Your task to perform on an android device: turn on the 24-hour format for clock Image 0: 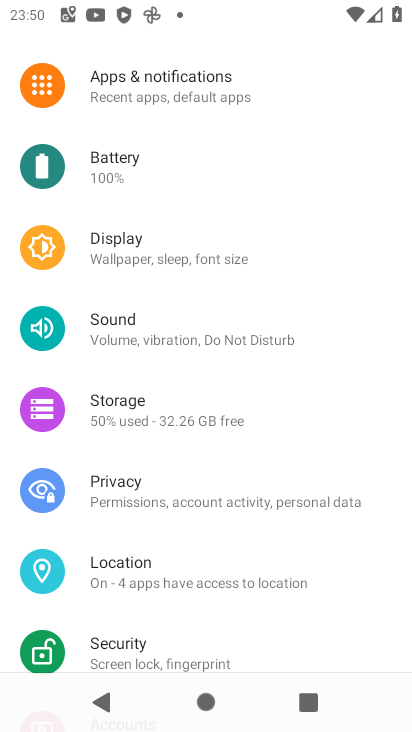
Step 0: press home button
Your task to perform on an android device: turn on the 24-hour format for clock Image 1: 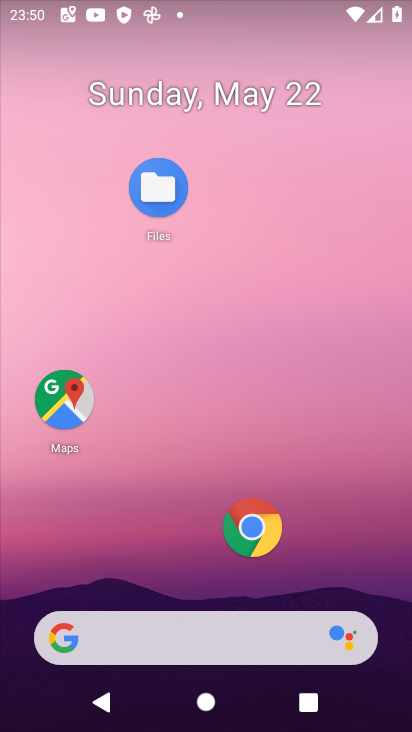
Step 1: drag from (127, 54) to (149, 21)
Your task to perform on an android device: turn on the 24-hour format for clock Image 2: 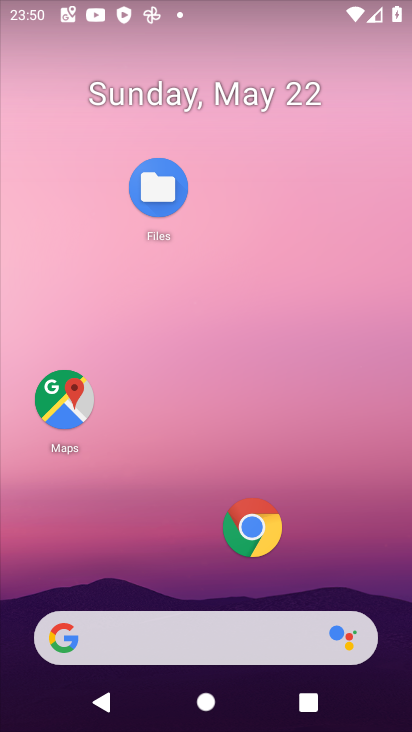
Step 2: drag from (328, 443) to (274, 75)
Your task to perform on an android device: turn on the 24-hour format for clock Image 3: 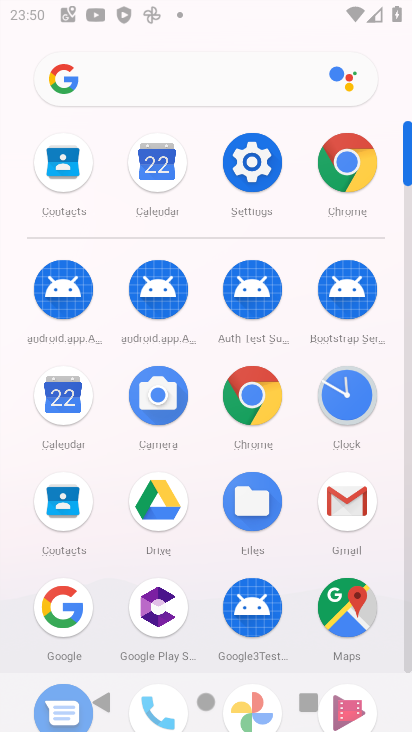
Step 3: click (332, 67)
Your task to perform on an android device: turn on the 24-hour format for clock Image 4: 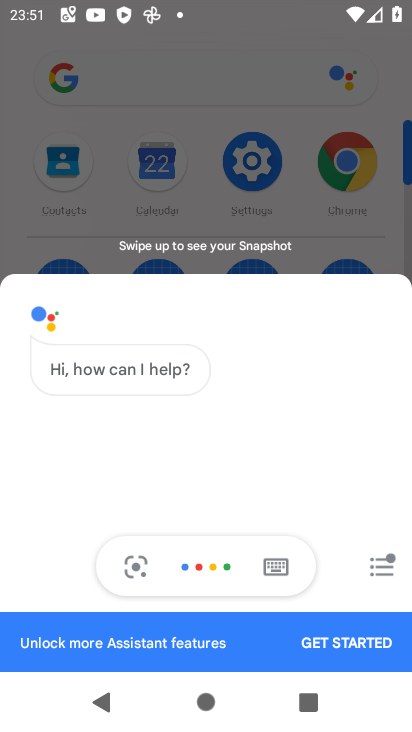
Step 4: click (19, 249)
Your task to perform on an android device: turn on the 24-hour format for clock Image 5: 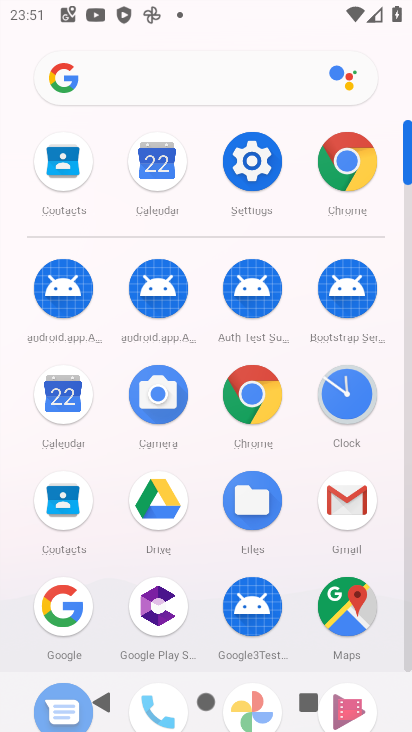
Step 5: click (334, 400)
Your task to perform on an android device: turn on the 24-hour format for clock Image 6: 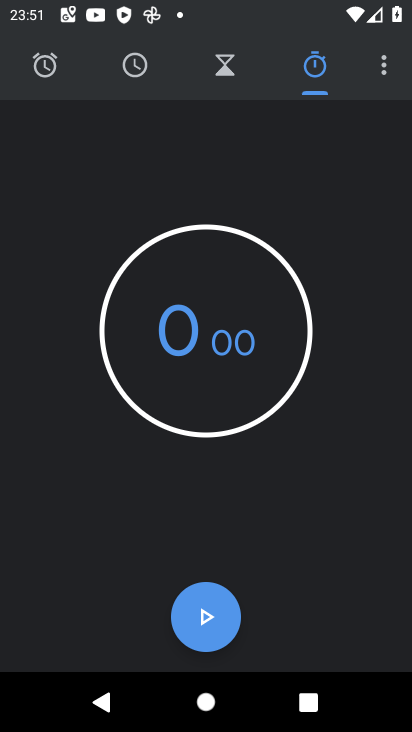
Step 6: click (383, 68)
Your task to perform on an android device: turn on the 24-hour format for clock Image 7: 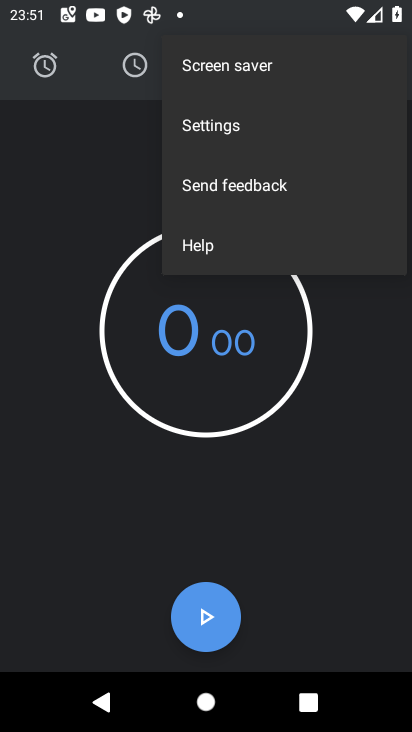
Step 7: click (205, 121)
Your task to perform on an android device: turn on the 24-hour format for clock Image 8: 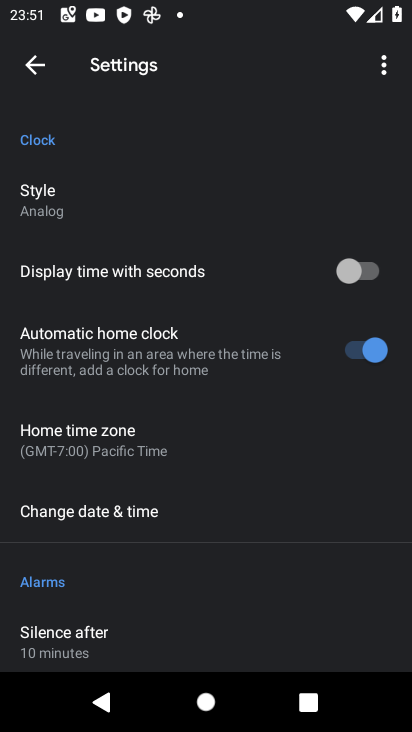
Step 8: click (80, 506)
Your task to perform on an android device: turn on the 24-hour format for clock Image 9: 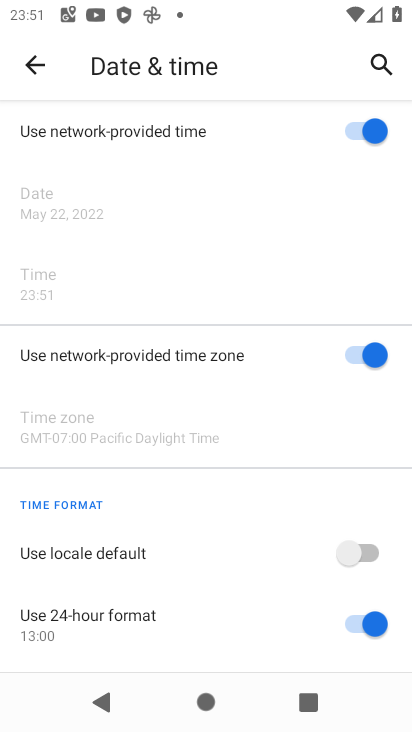
Step 9: task complete